Your task to perform on an android device: Open Google Image 0: 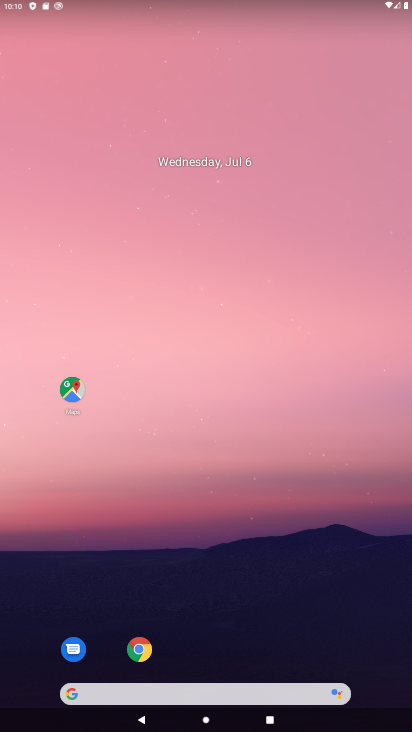
Step 0: click (207, 9)
Your task to perform on an android device: Open Google Image 1: 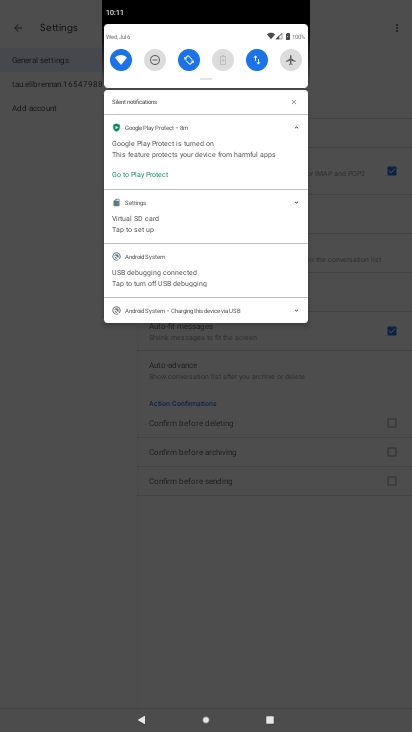
Step 1: press home button
Your task to perform on an android device: Open Google Image 2: 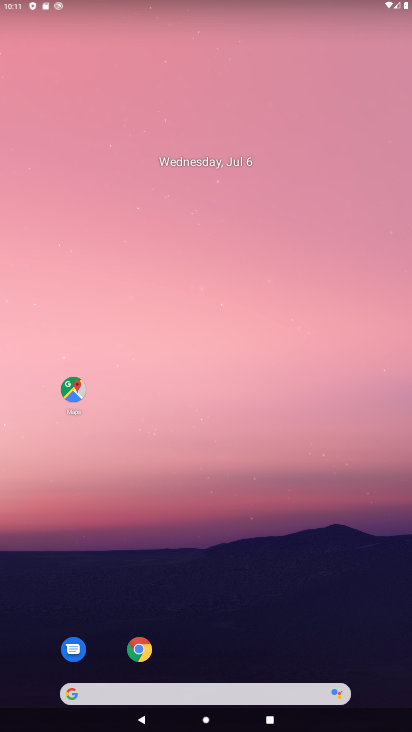
Step 2: drag from (353, 662) to (221, 9)
Your task to perform on an android device: Open Google Image 3: 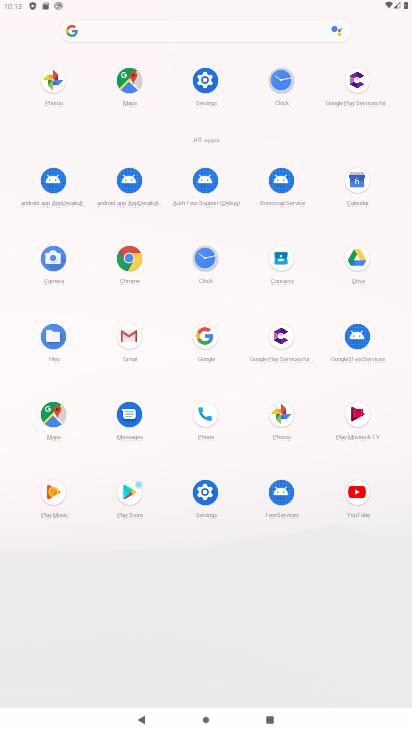
Step 3: click (196, 331)
Your task to perform on an android device: Open Google Image 4: 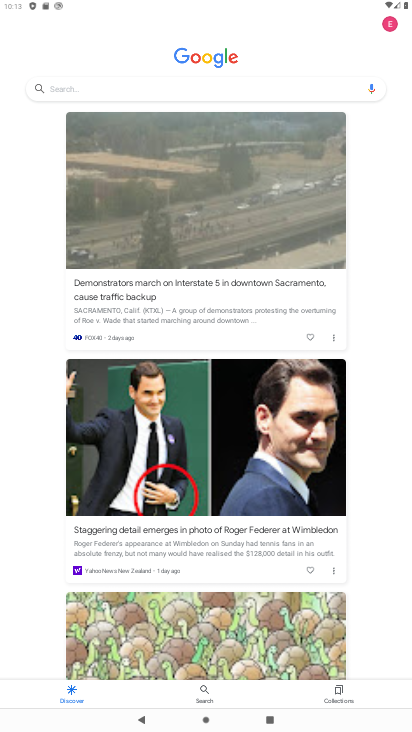
Step 4: task complete